Your task to perform on an android device: open app "Instagram" (install if not already installed) Image 0: 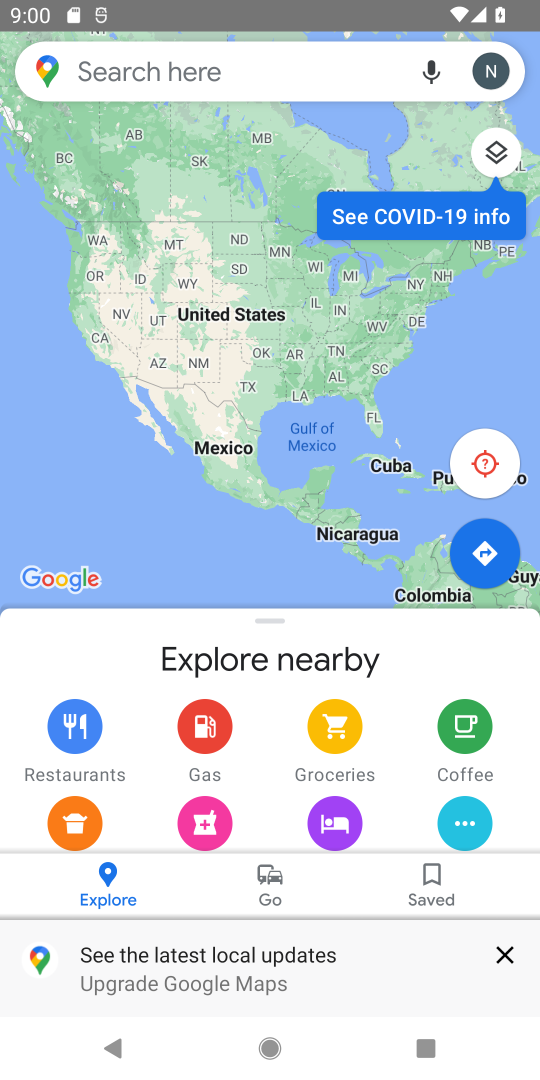
Step 0: press home button
Your task to perform on an android device: open app "Instagram" (install if not already installed) Image 1: 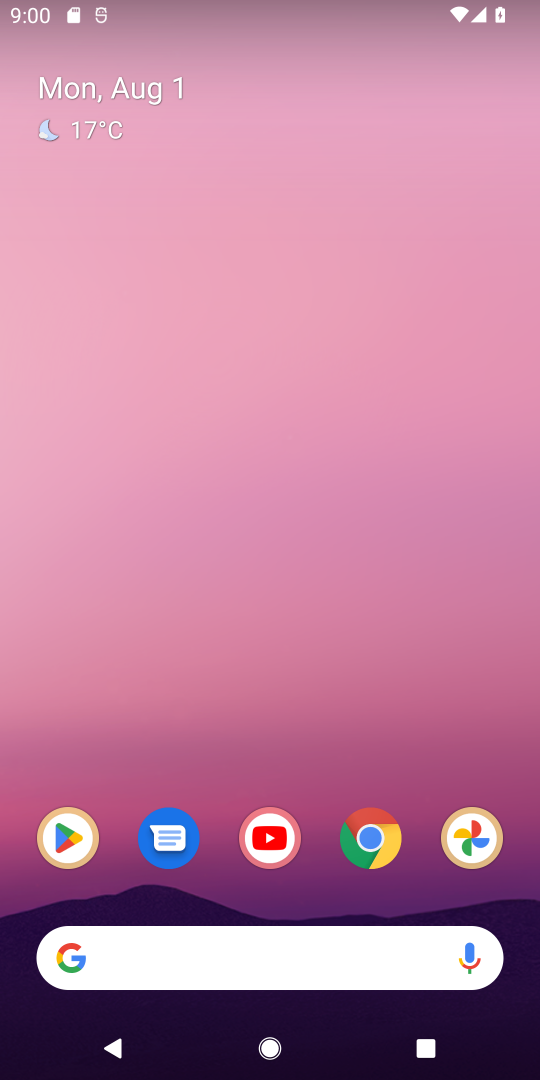
Step 1: click (66, 851)
Your task to perform on an android device: open app "Instagram" (install if not already installed) Image 2: 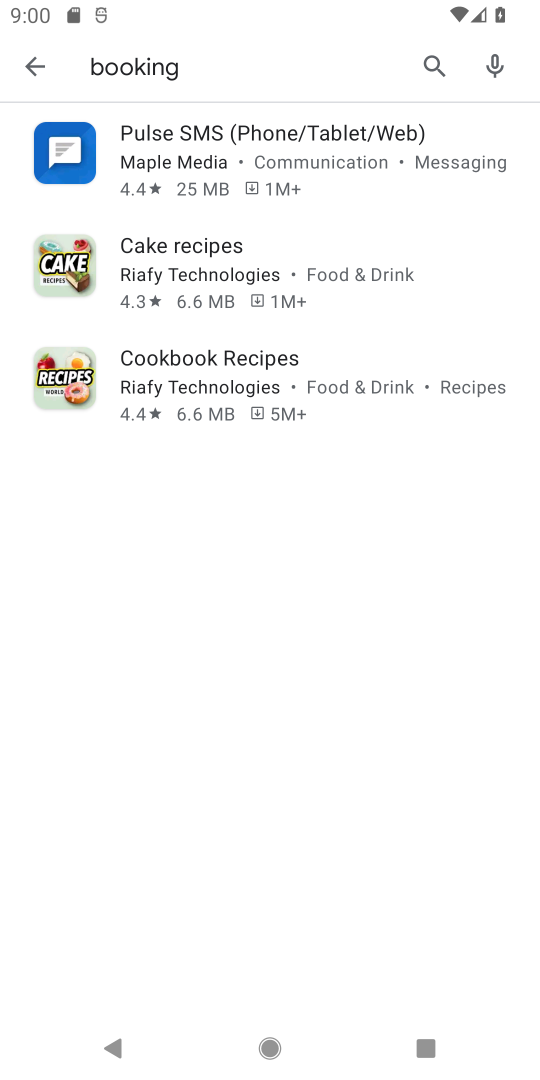
Step 2: click (428, 65)
Your task to perform on an android device: open app "Instagram" (install if not already installed) Image 3: 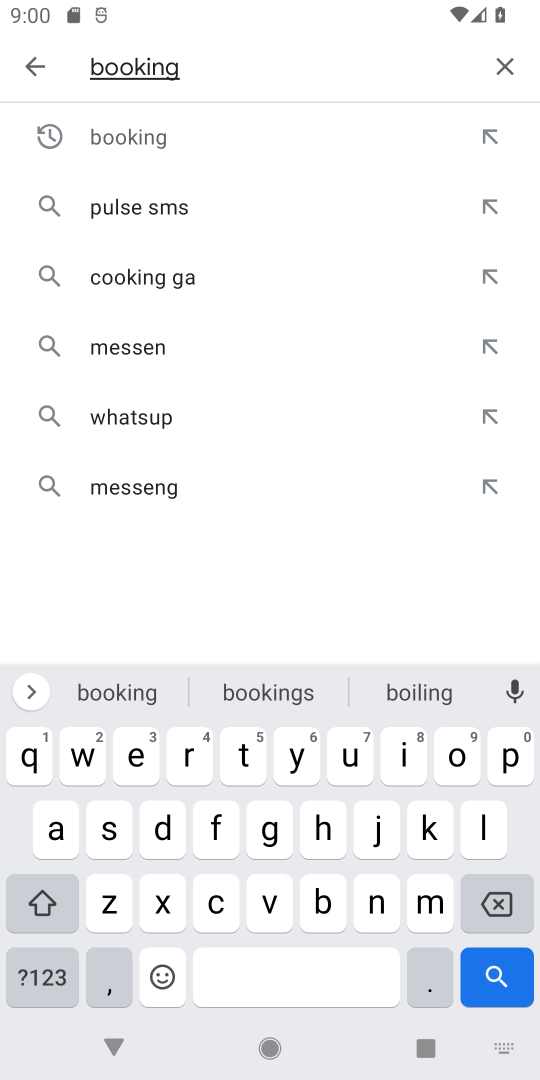
Step 3: click (500, 63)
Your task to perform on an android device: open app "Instagram" (install if not already installed) Image 4: 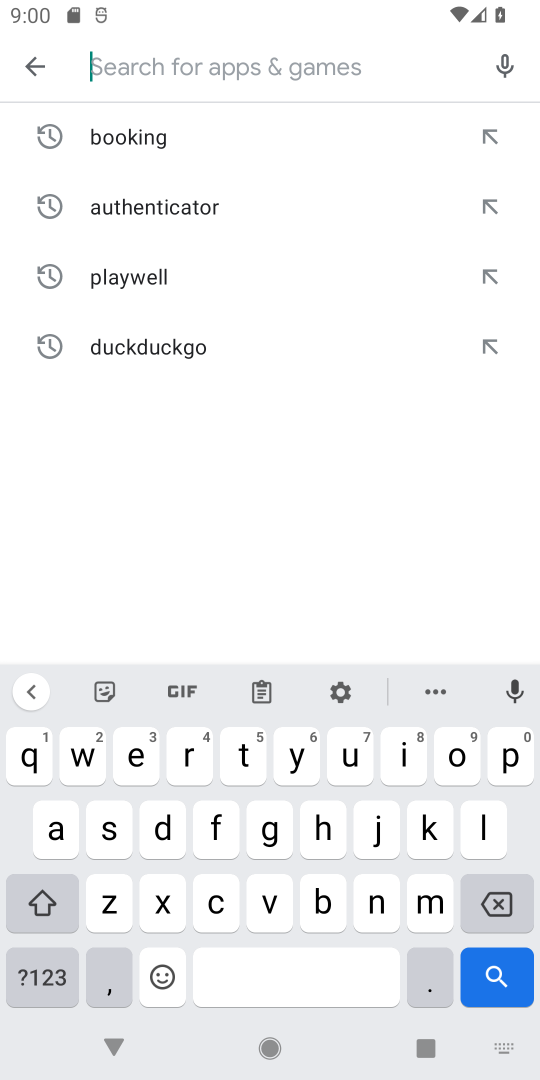
Step 4: click (405, 752)
Your task to perform on an android device: open app "Instagram" (install if not already installed) Image 5: 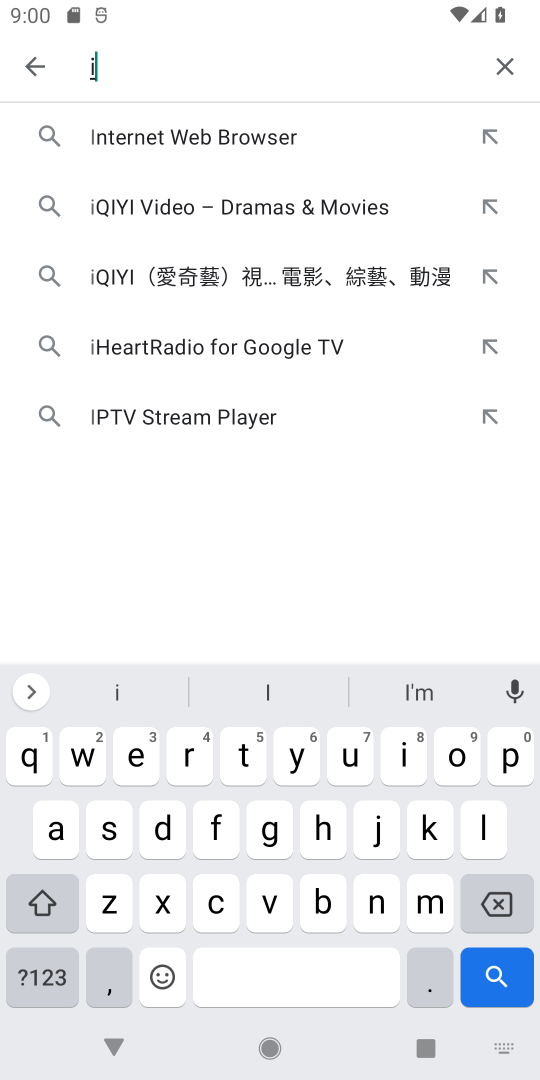
Step 5: click (368, 902)
Your task to perform on an android device: open app "Instagram" (install if not already installed) Image 6: 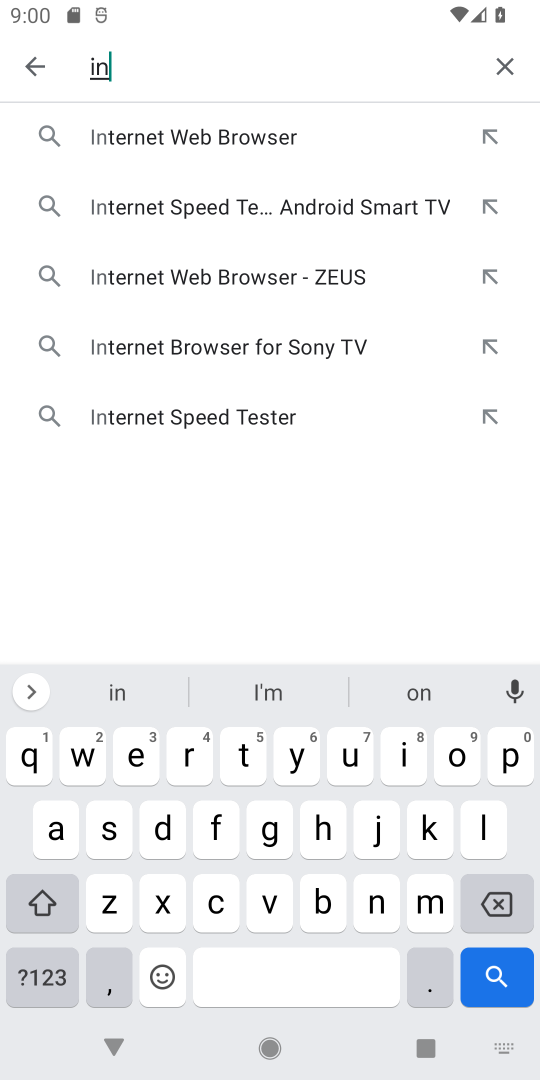
Step 6: click (109, 834)
Your task to perform on an android device: open app "Instagram" (install if not already installed) Image 7: 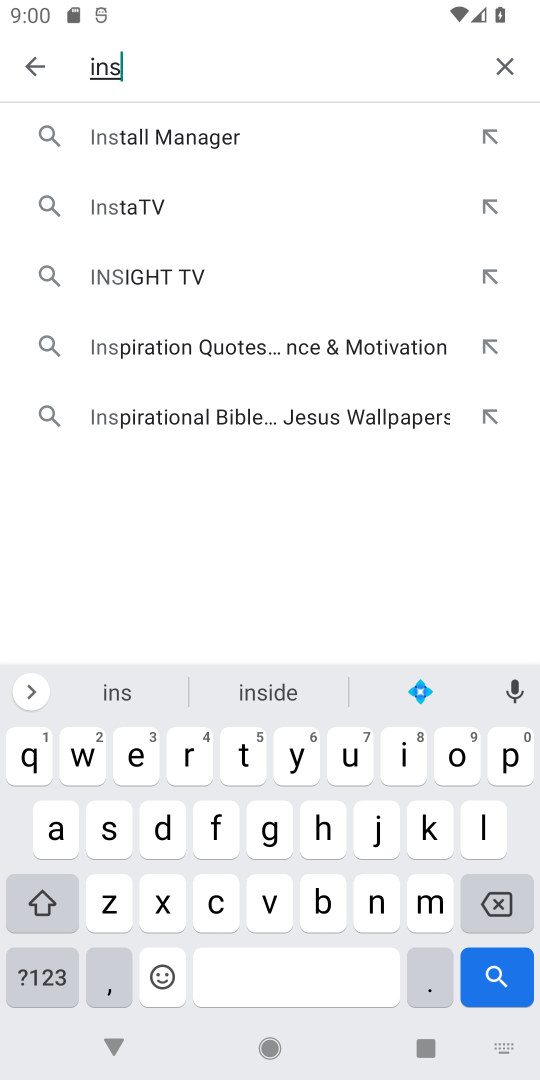
Step 7: click (243, 768)
Your task to perform on an android device: open app "Instagram" (install if not already installed) Image 8: 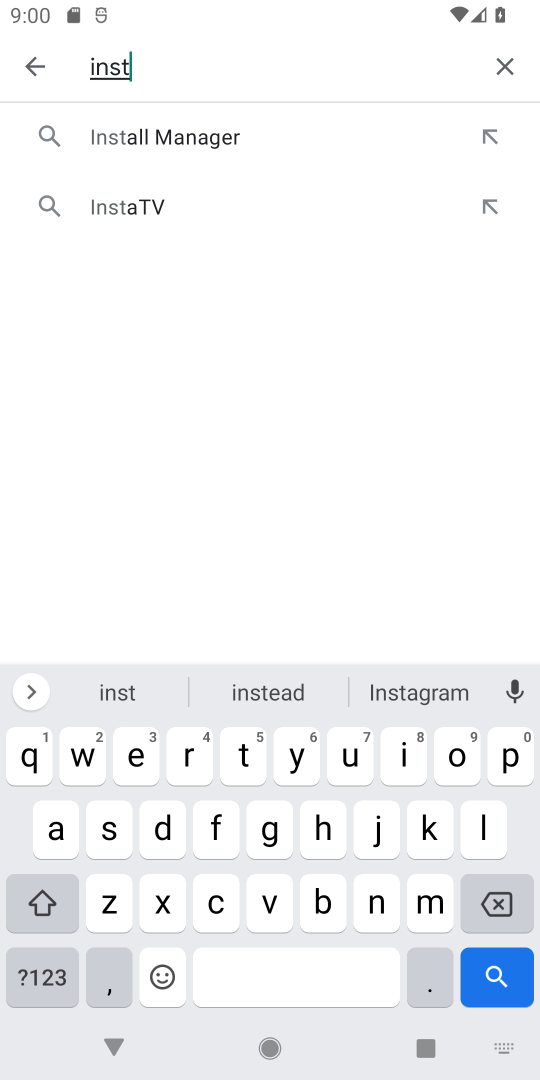
Step 8: click (391, 691)
Your task to perform on an android device: open app "Instagram" (install if not already installed) Image 9: 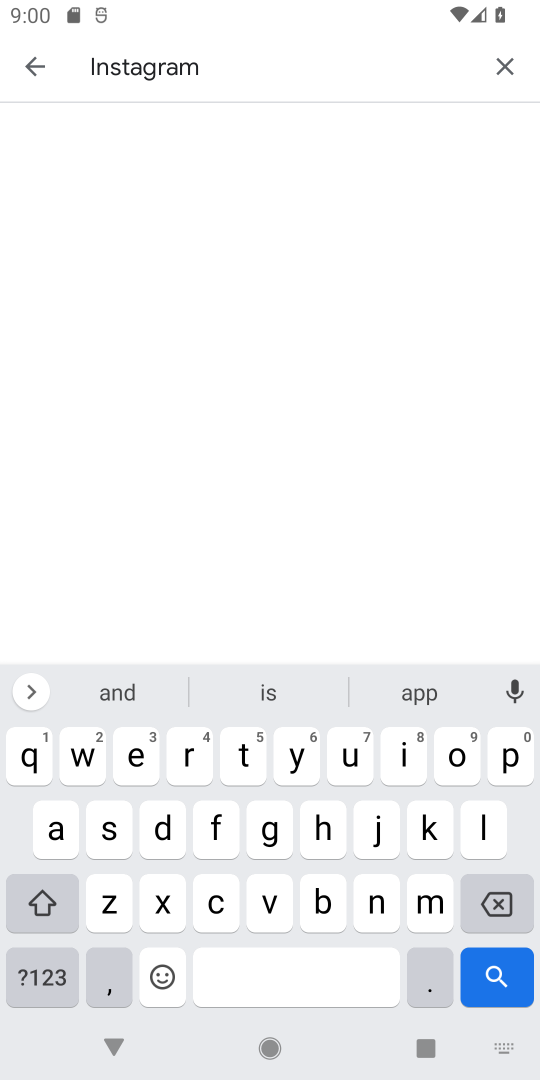
Step 9: click (486, 977)
Your task to perform on an android device: open app "Instagram" (install if not already installed) Image 10: 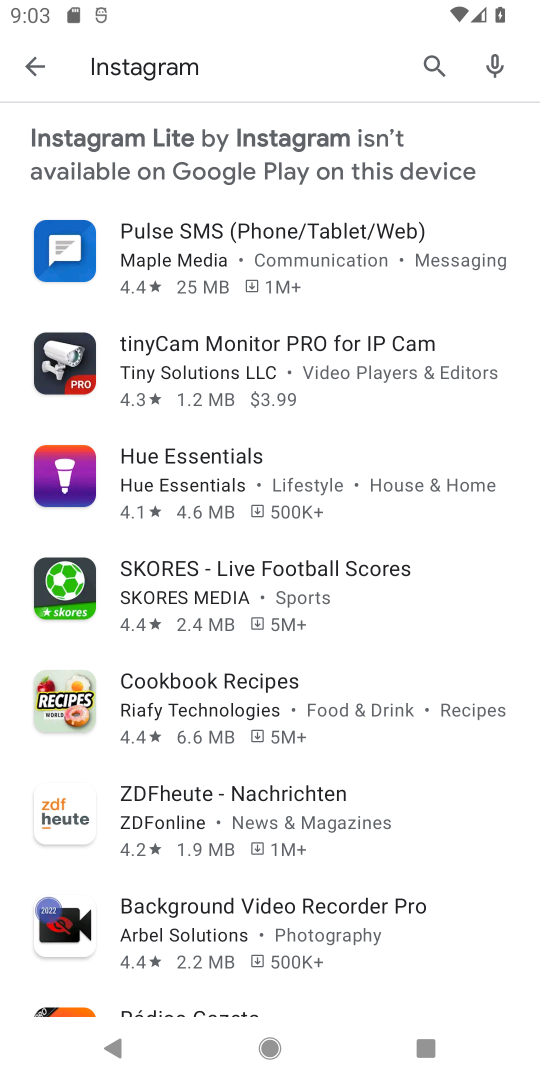
Step 10: task complete